Your task to perform on an android device: check the backup settings in the google photos Image 0: 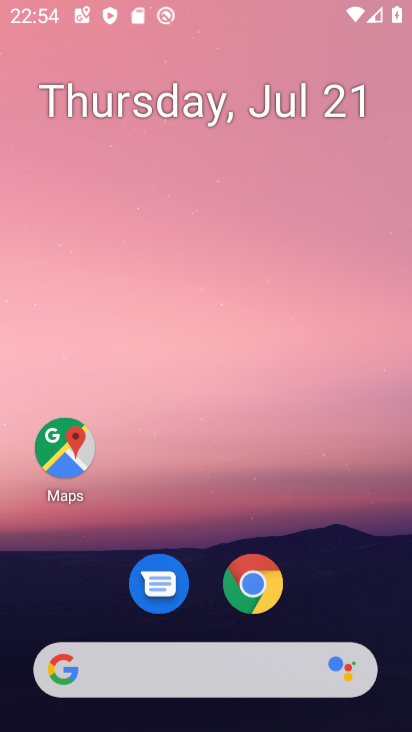
Step 0: drag from (357, 103) to (380, 0)
Your task to perform on an android device: check the backup settings in the google photos Image 1: 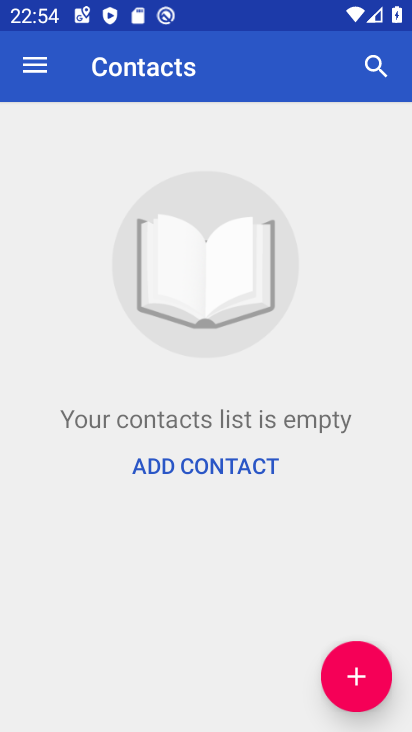
Step 1: press home button
Your task to perform on an android device: check the backup settings in the google photos Image 2: 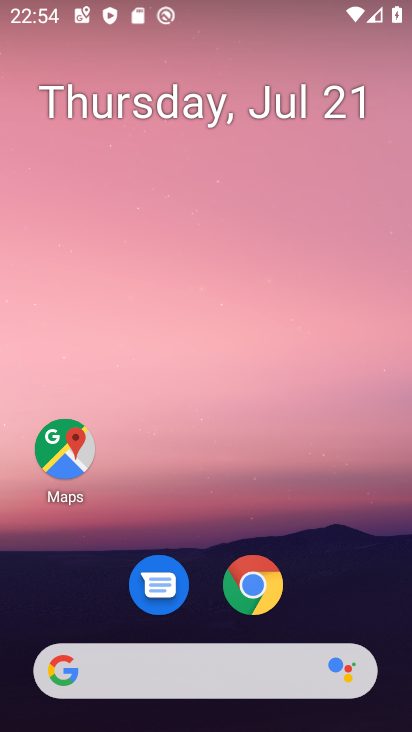
Step 2: drag from (245, 514) to (297, 13)
Your task to perform on an android device: check the backup settings in the google photos Image 3: 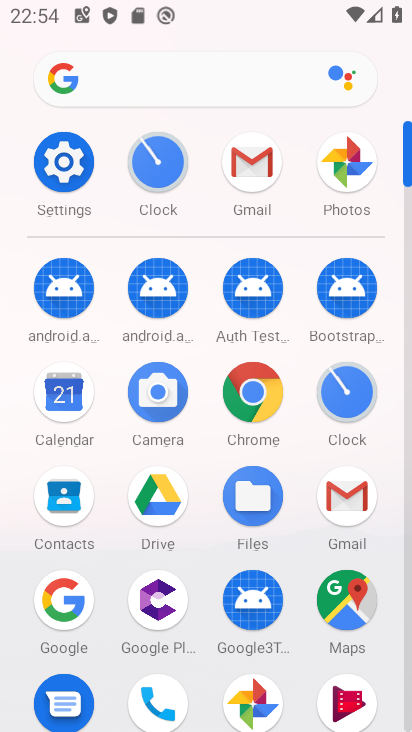
Step 3: drag from (162, 658) to (273, 124)
Your task to perform on an android device: check the backup settings in the google photos Image 4: 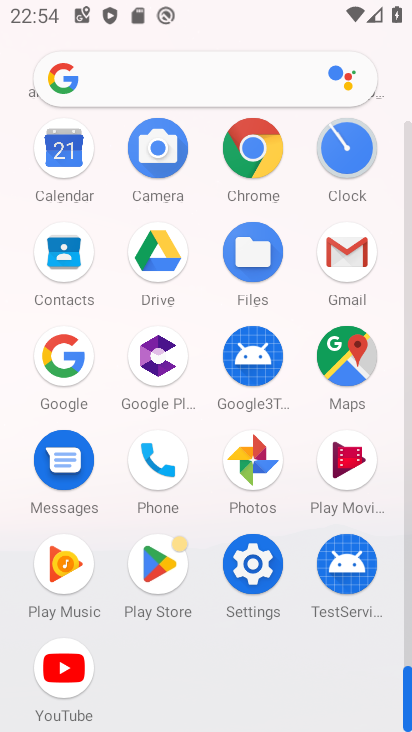
Step 4: click (262, 460)
Your task to perform on an android device: check the backup settings in the google photos Image 5: 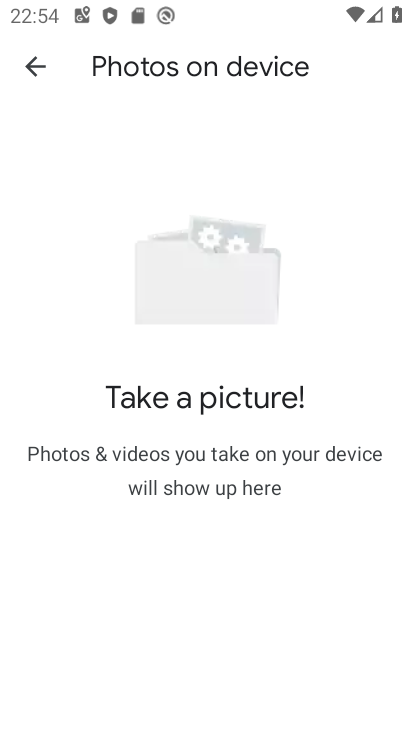
Step 5: click (41, 60)
Your task to perform on an android device: check the backup settings in the google photos Image 6: 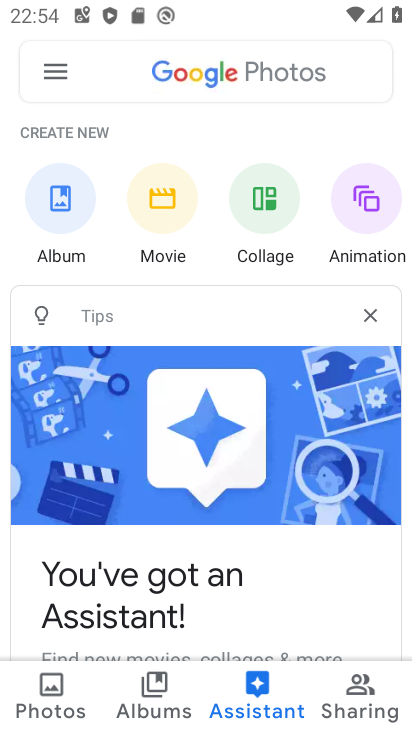
Step 6: click (41, 59)
Your task to perform on an android device: check the backup settings in the google photos Image 7: 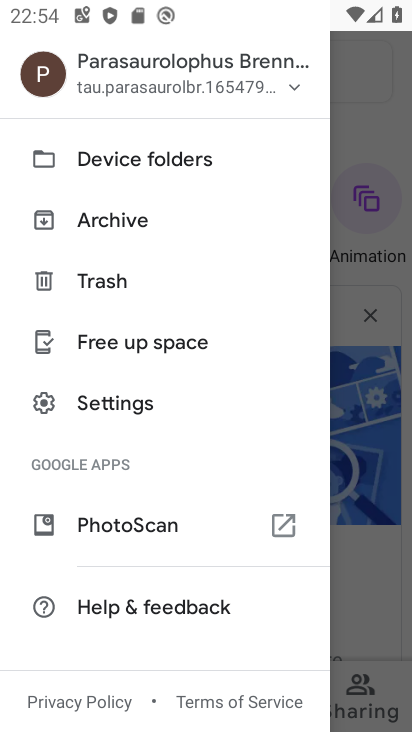
Step 7: click (132, 395)
Your task to perform on an android device: check the backup settings in the google photos Image 8: 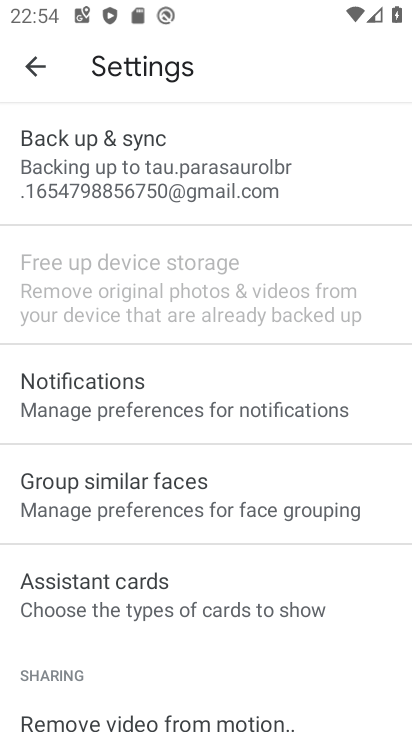
Step 8: click (238, 185)
Your task to perform on an android device: check the backup settings in the google photos Image 9: 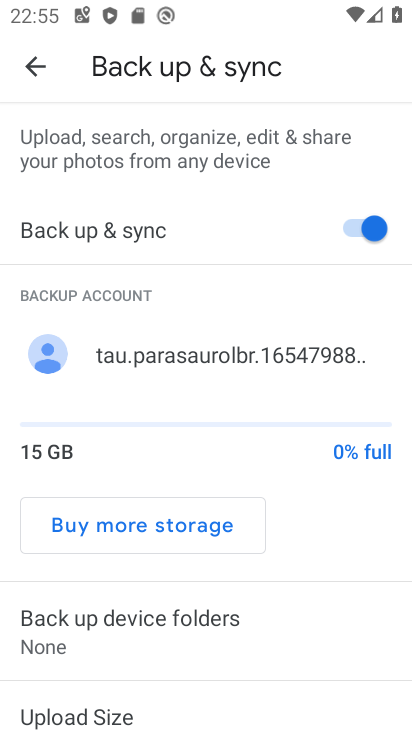
Step 9: task complete